Your task to perform on an android device: add a contact Image 0: 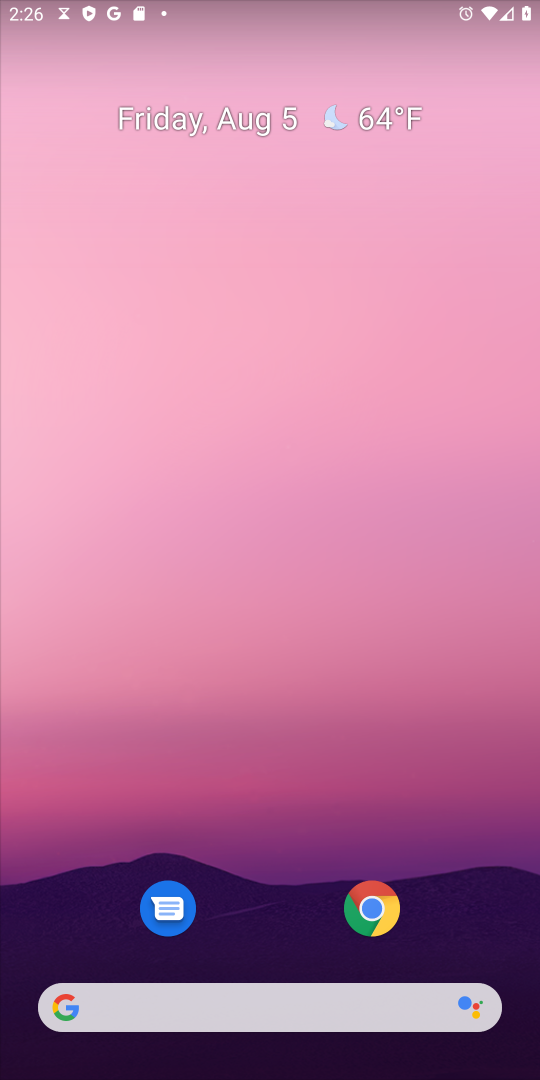
Step 0: drag from (306, 881) to (263, 87)
Your task to perform on an android device: add a contact Image 1: 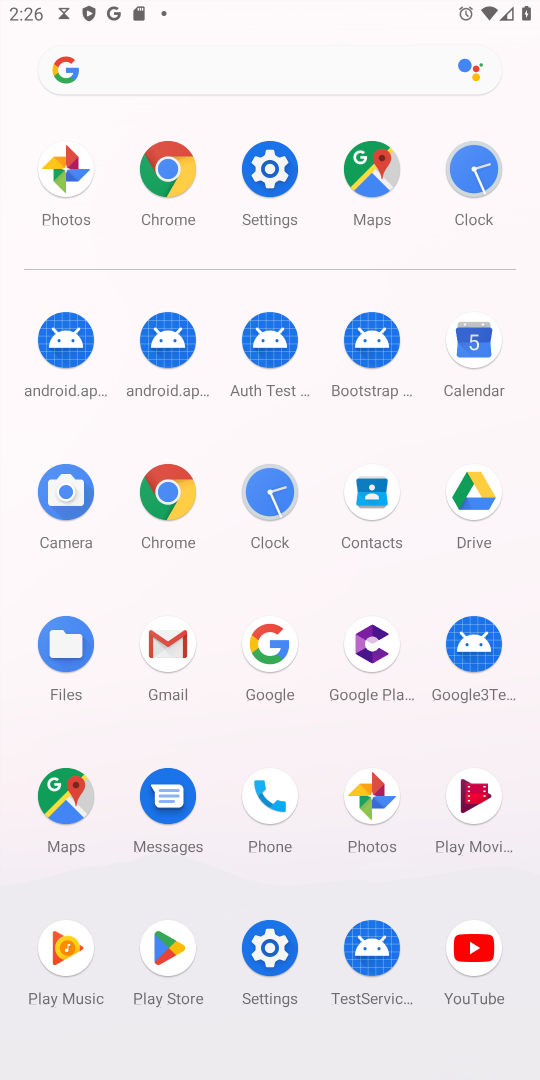
Step 1: click (377, 487)
Your task to perform on an android device: add a contact Image 2: 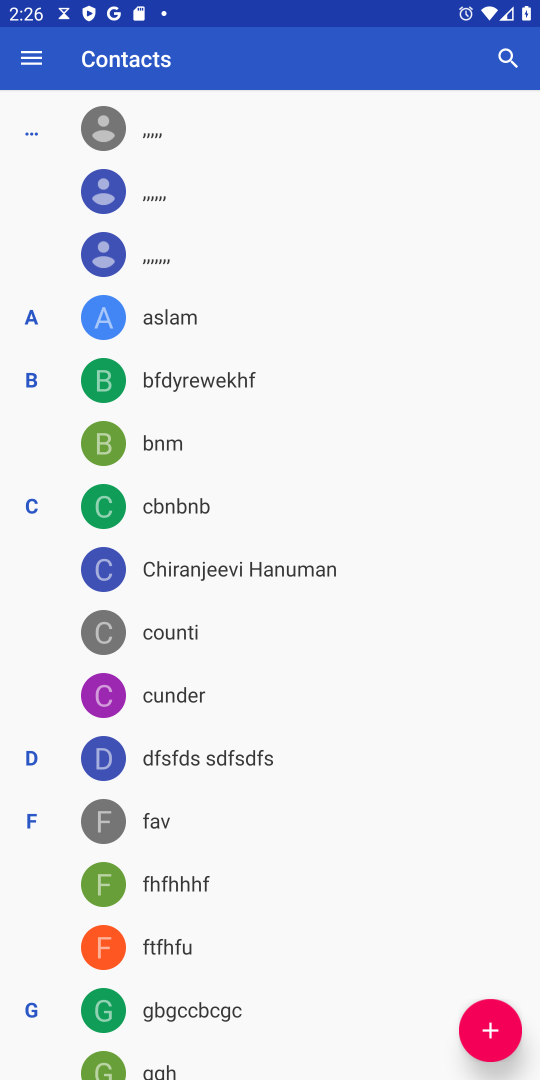
Step 2: click (486, 1020)
Your task to perform on an android device: add a contact Image 3: 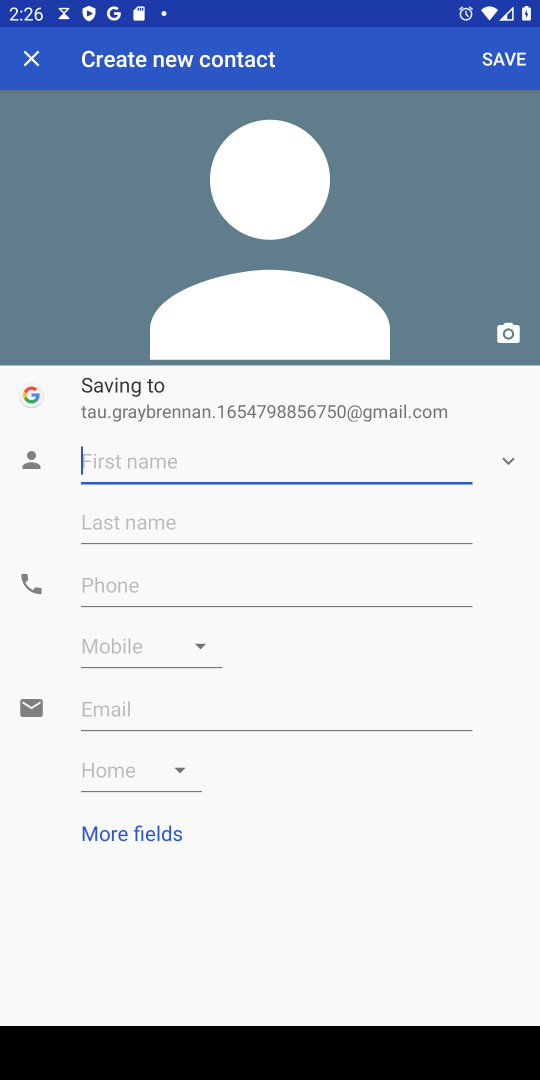
Step 3: type "hhhaaaa"
Your task to perform on an android device: add a contact Image 4: 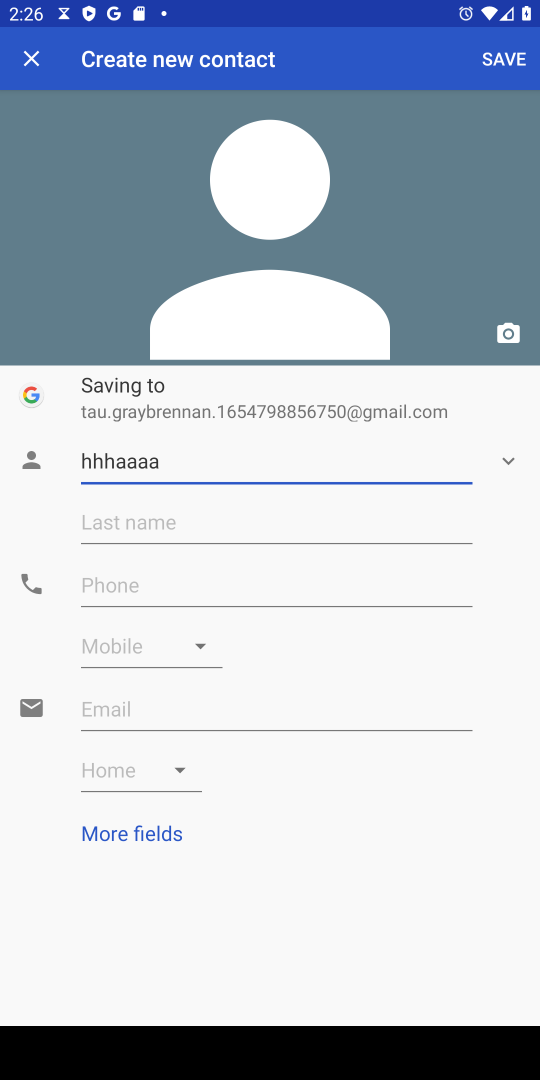
Step 4: click (285, 584)
Your task to perform on an android device: add a contact Image 5: 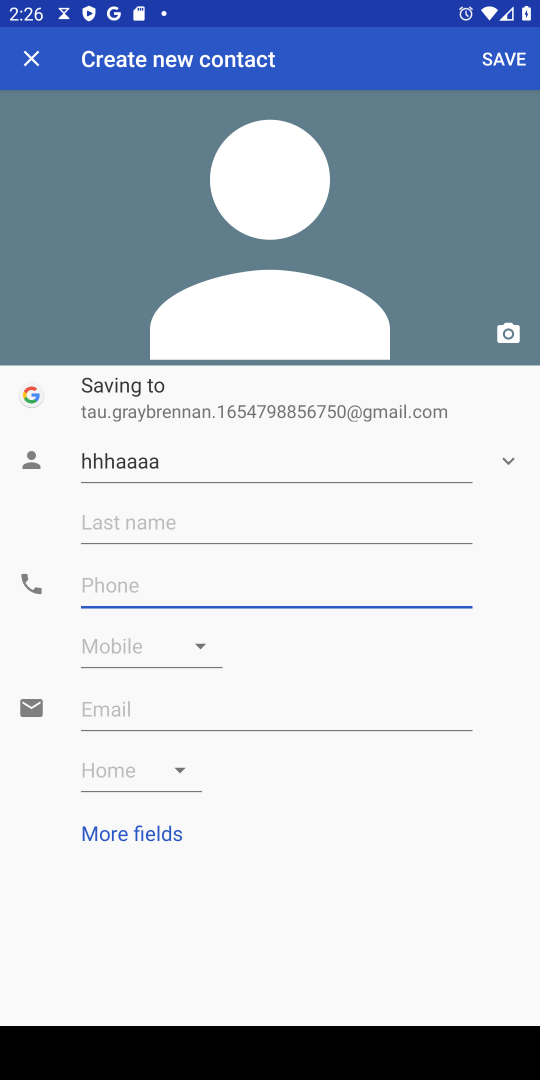
Step 5: type "5543"
Your task to perform on an android device: add a contact Image 6: 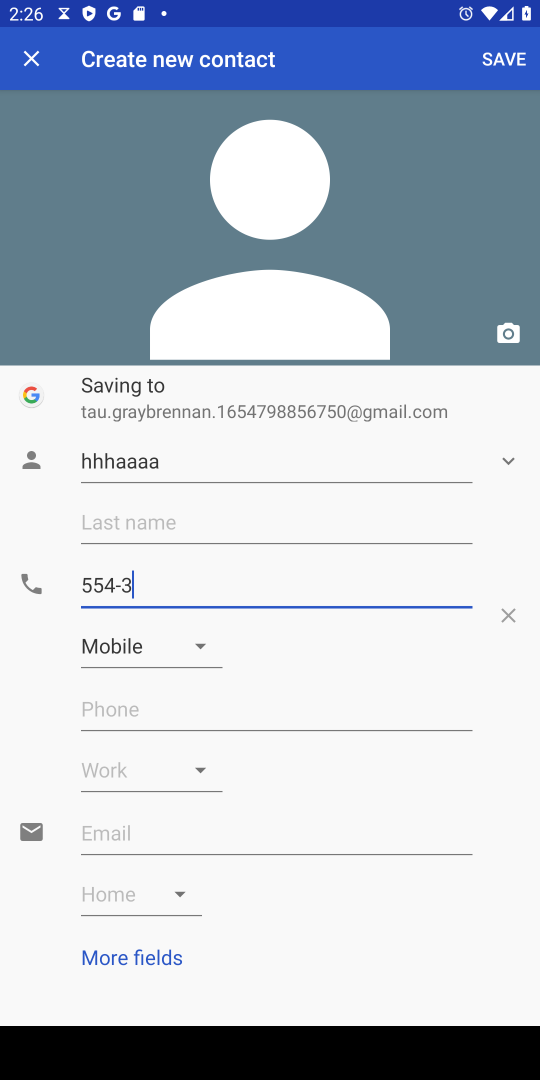
Step 6: click (491, 44)
Your task to perform on an android device: add a contact Image 7: 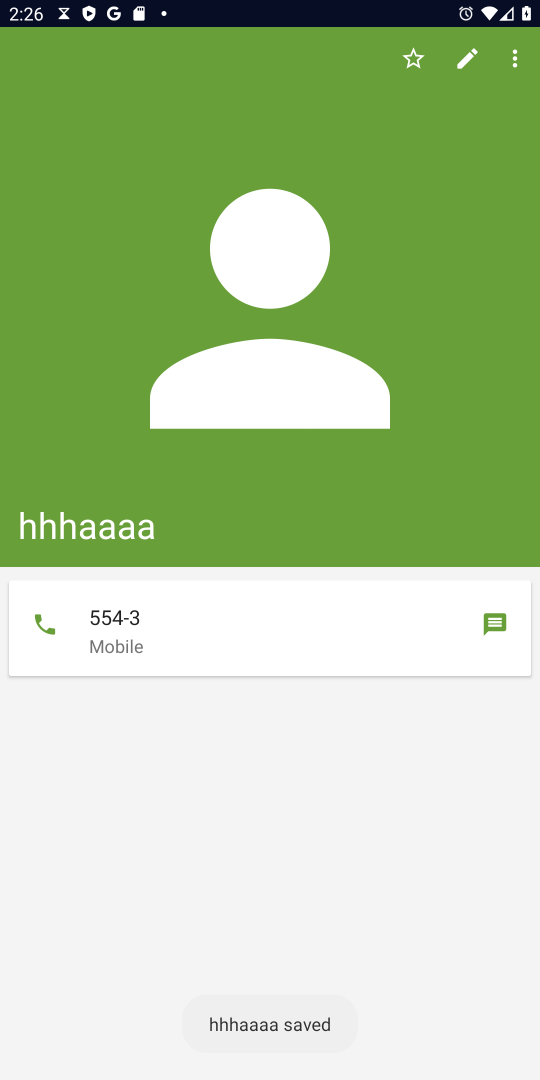
Step 7: task complete